Your task to perform on an android device: Open Google Maps and go to "Timeline" Image 0: 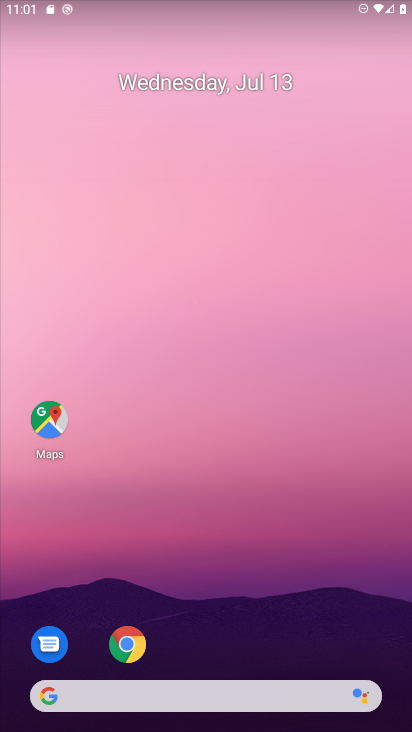
Step 0: click (46, 417)
Your task to perform on an android device: Open Google Maps and go to "Timeline" Image 1: 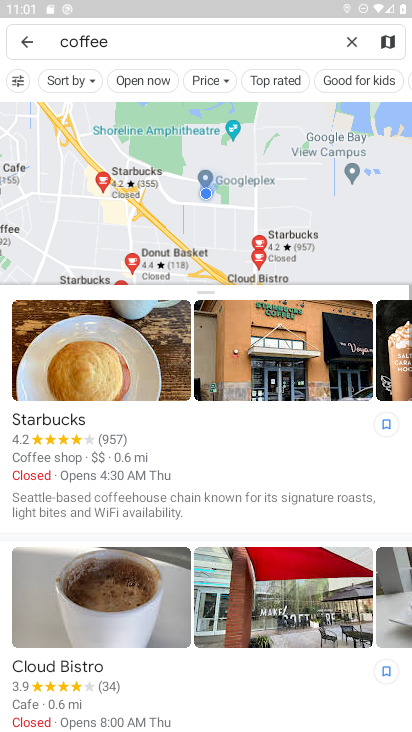
Step 1: click (22, 40)
Your task to perform on an android device: Open Google Maps and go to "Timeline" Image 2: 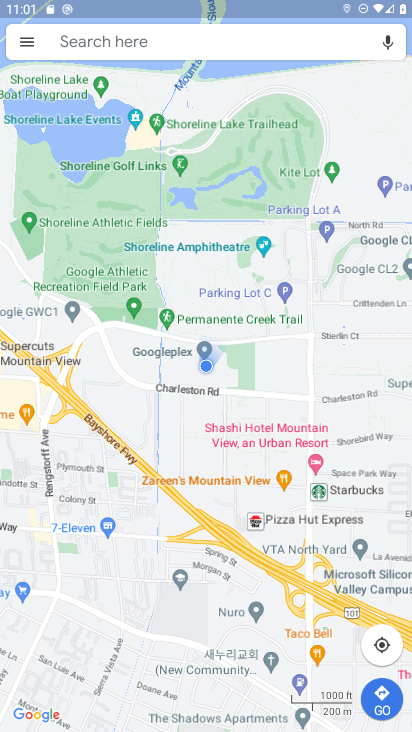
Step 2: click (19, 39)
Your task to perform on an android device: Open Google Maps and go to "Timeline" Image 3: 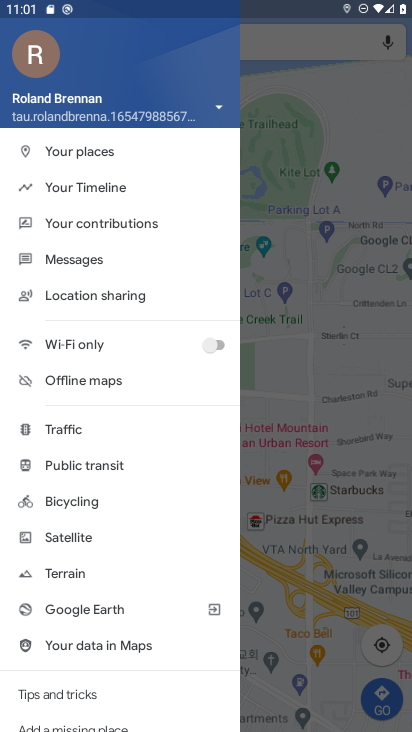
Step 3: click (83, 185)
Your task to perform on an android device: Open Google Maps and go to "Timeline" Image 4: 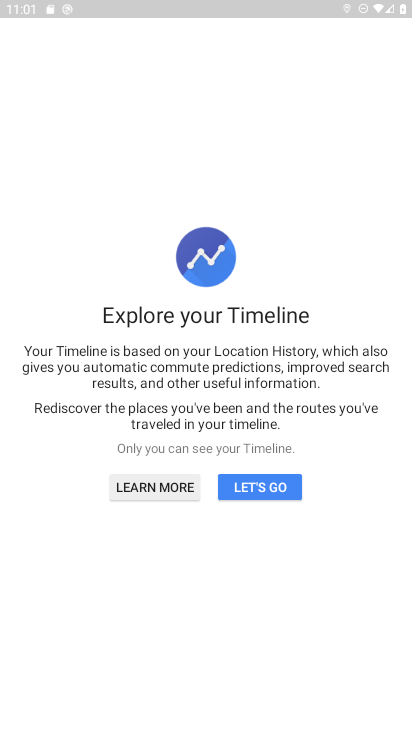
Step 4: click (240, 483)
Your task to perform on an android device: Open Google Maps and go to "Timeline" Image 5: 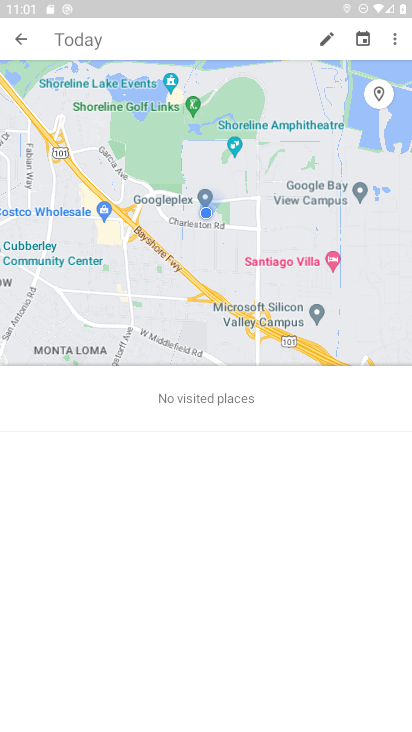
Step 5: task complete